Your task to perform on an android device: Add "razer blade" to the cart on costco.com Image 0: 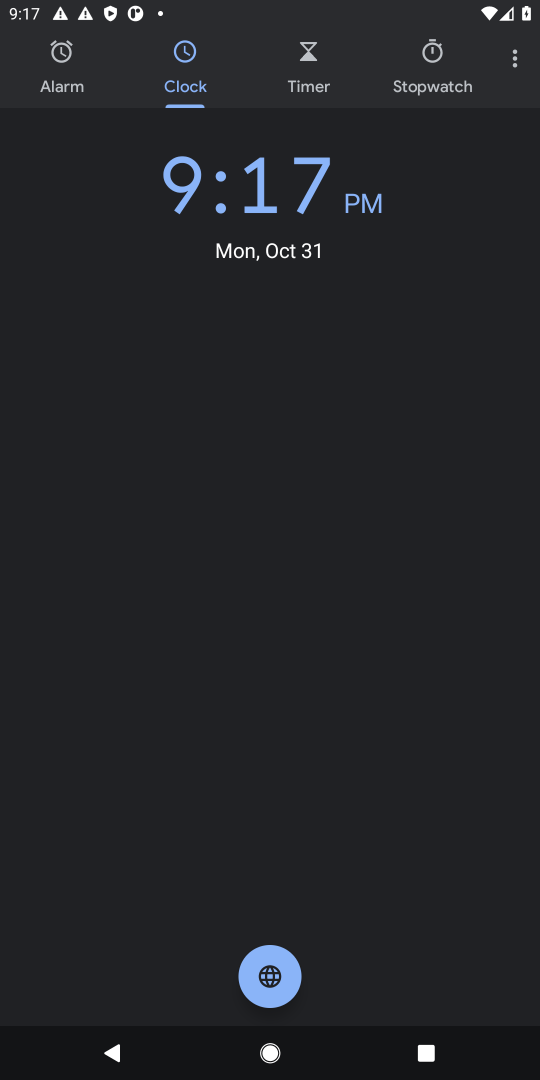
Step 0: press home button
Your task to perform on an android device: Add "razer blade" to the cart on costco.com Image 1: 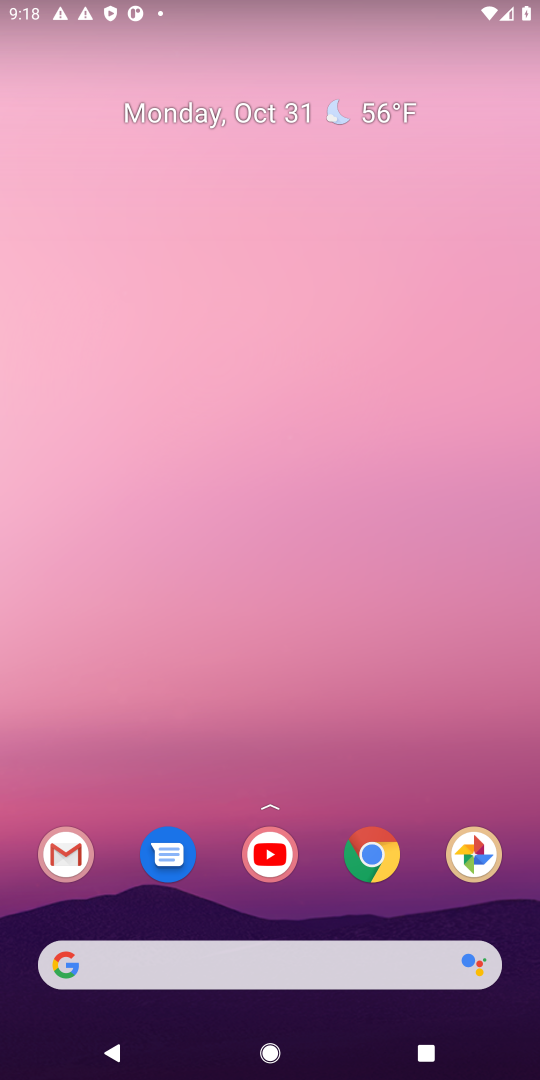
Step 1: click (215, 976)
Your task to perform on an android device: Add "razer blade" to the cart on costco.com Image 2: 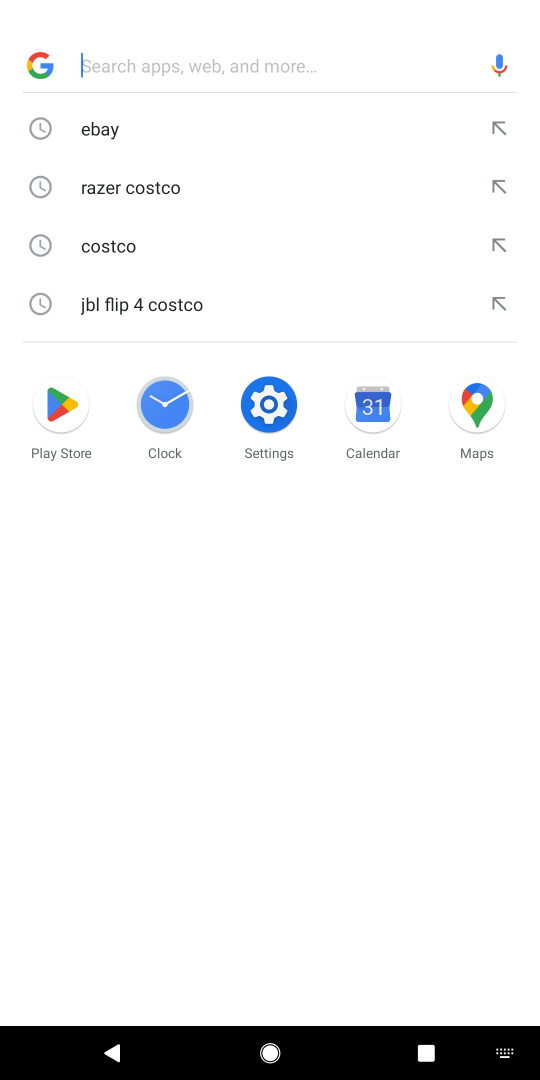
Step 2: type "razer blade costco"
Your task to perform on an android device: Add "razer blade" to the cart on costco.com Image 3: 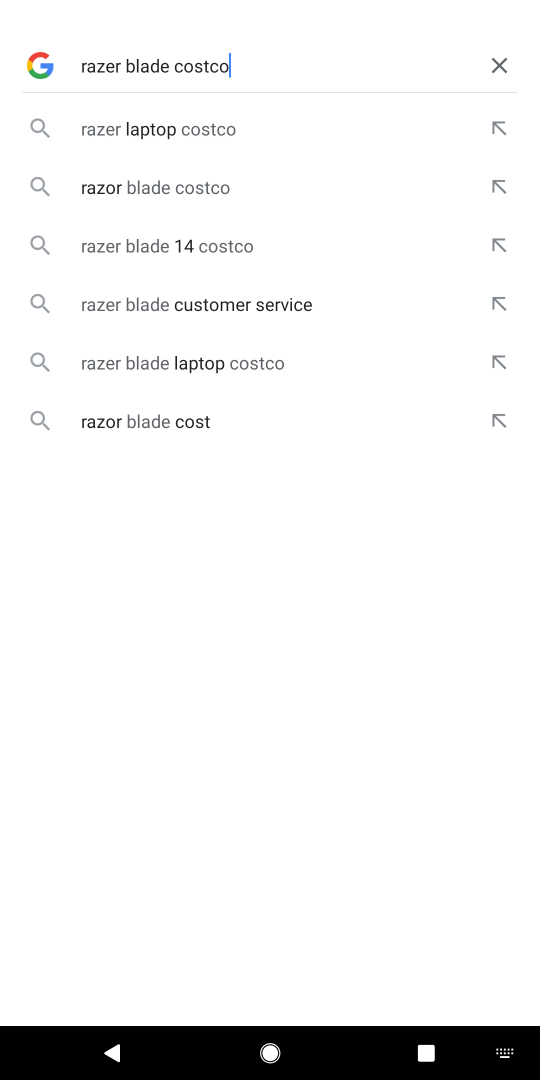
Step 3: click (113, 124)
Your task to perform on an android device: Add "razer blade" to the cart on costco.com Image 4: 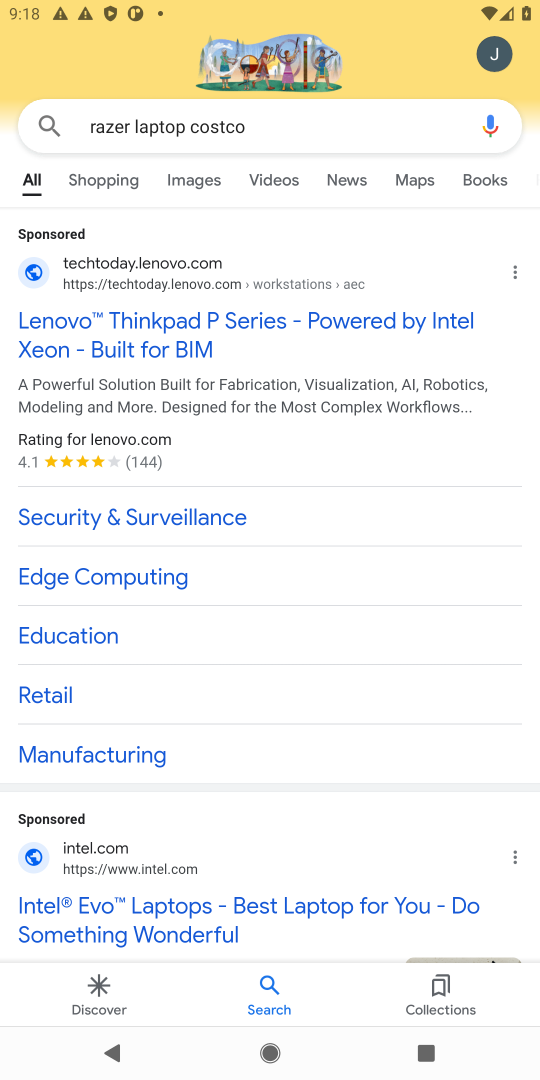
Step 4: click (125, 377)
Your task to perform on an android device: Add "razer blade" to the cart on costco.com Image 5: 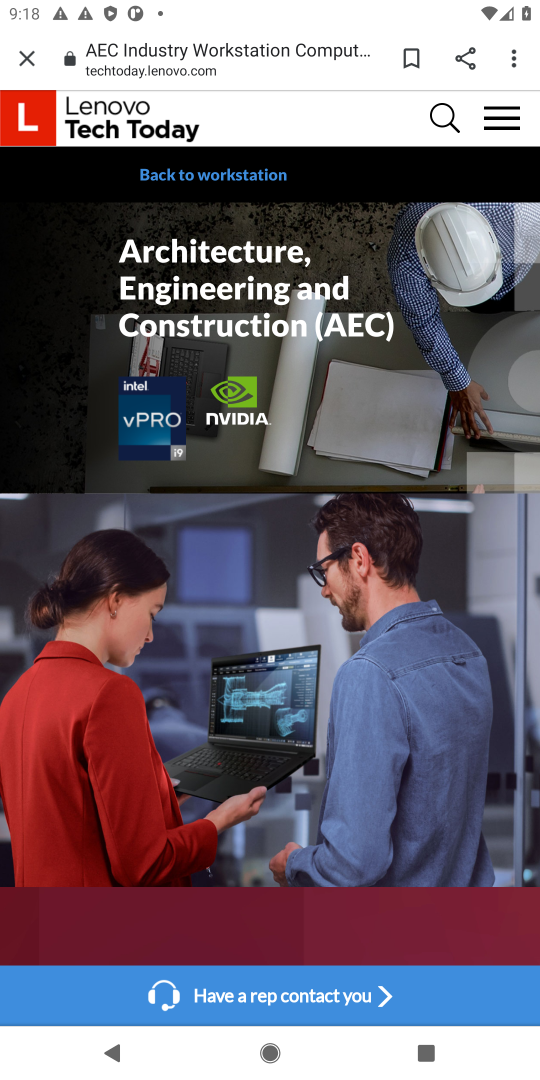
Step 5: task complete